Your task to perform on an android device: Clear all items from cart on costco. Search for "razer blade" on costco, select the first entry, and add it to the cart. Image 0: 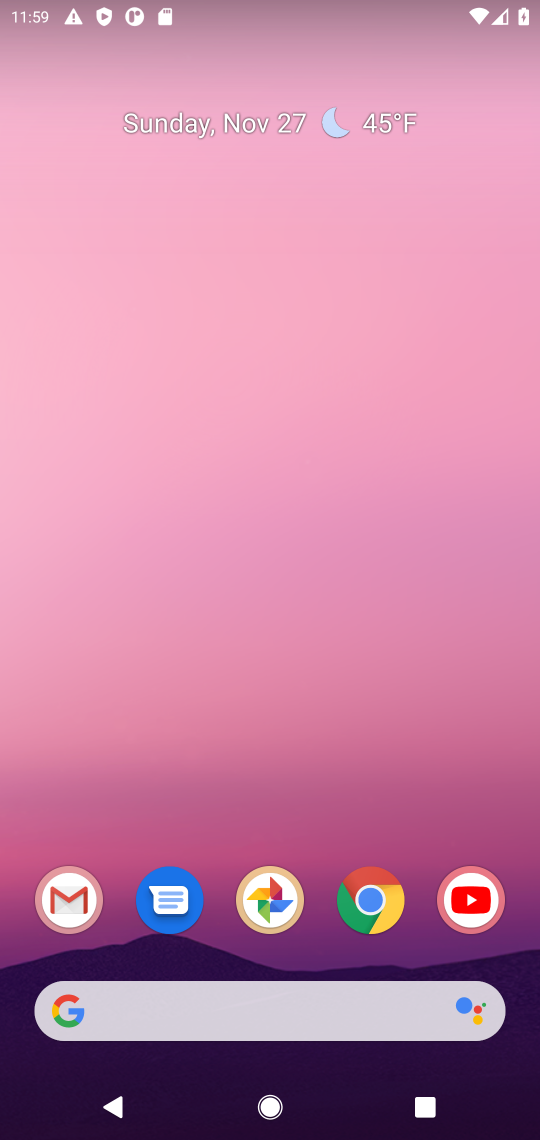
Step 0: click (378, 891)
Your task to perform on an android device: Clear all items from cart on costco. Search for "razer blade" on costco, select the first entry, and add it to the cart. Image 1: 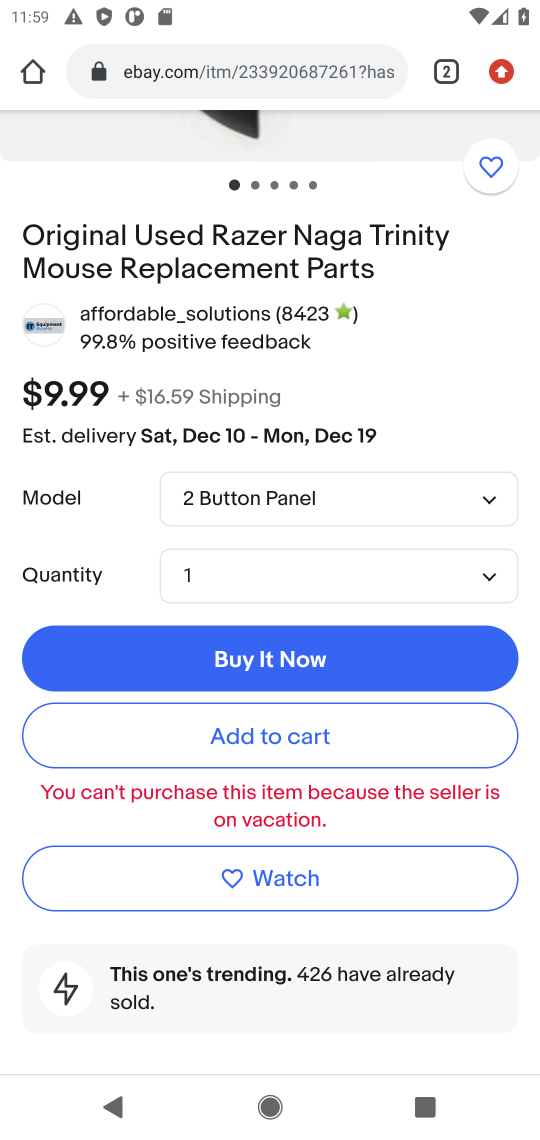
Step 1: click (201, 65)
Your task to perform on an android device: Clear all items from cart on costco. Search for "razer blade" on costco, select the first entry, and add it to the cart. Image 2: 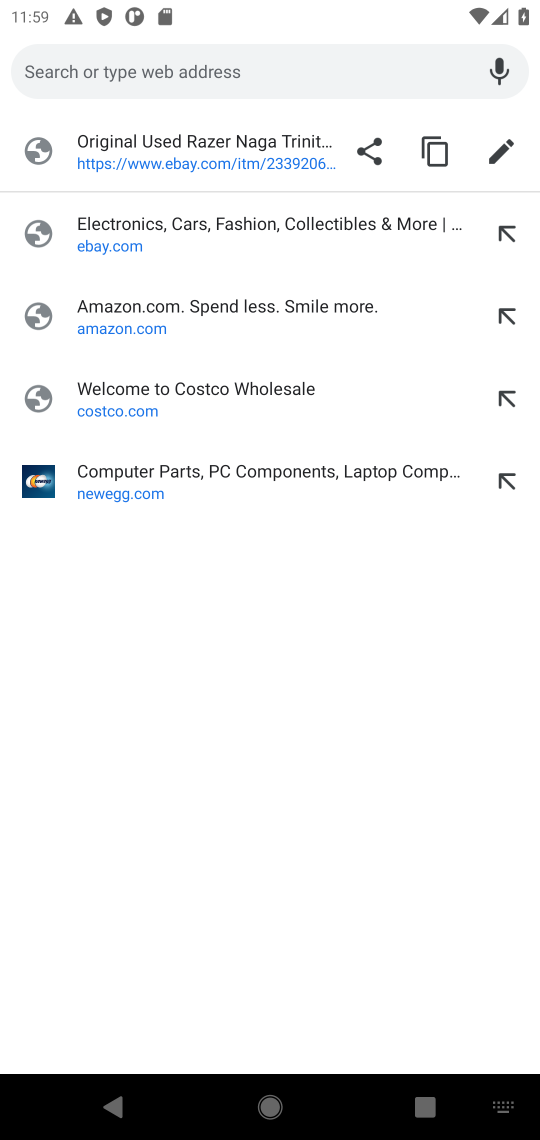
Step 2: click (109, 387)
Your task to perform on an android device: Clear all items from cart on costco. Search for "razer blade" on costco, select the first entry, and add it to the cart. Image 3: 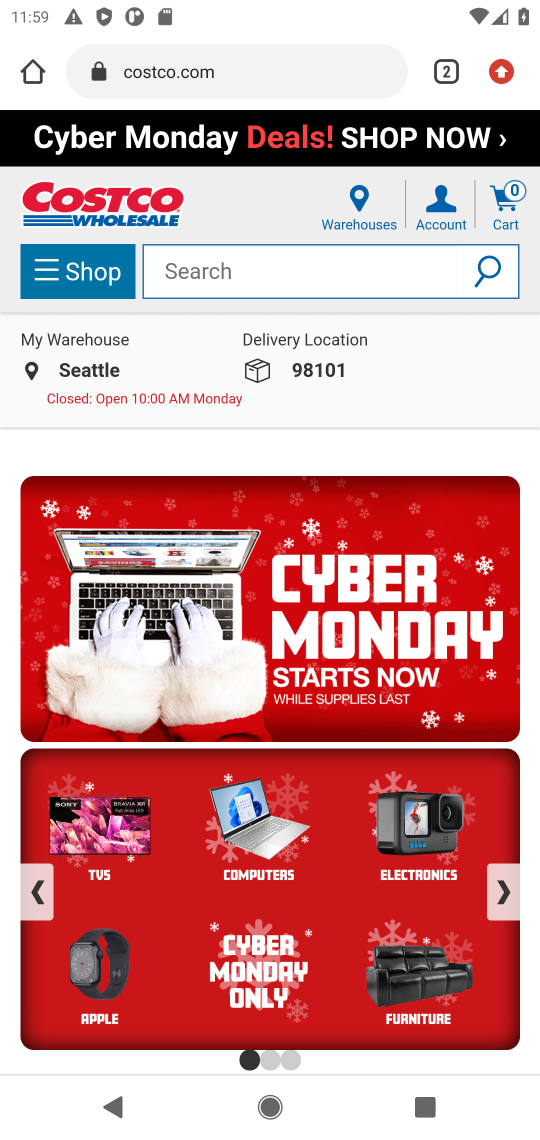
Step 3: click (502, 205)
Your task to perform on an android device: Clear all items from cart on costco. Search for "razer blade" on costco, select the first entry, and add it to the cart. Image 4: 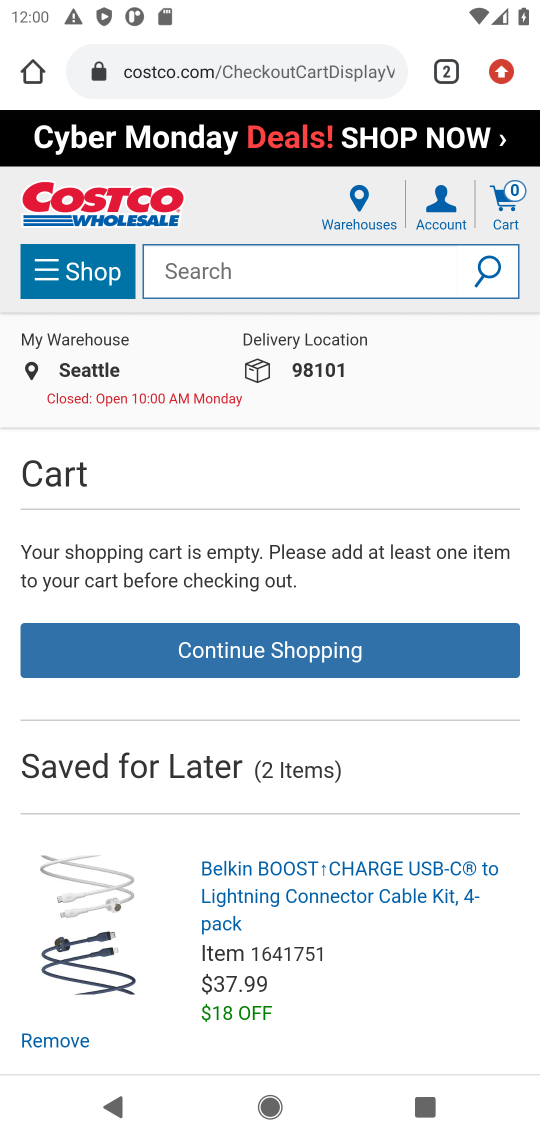
Step 4: click (167, 260)
Your task to perform on an android device: Clear all items from cart on costco. Search for "razer blade" on costco, select the first entry, and add it to the cart. Image 5: 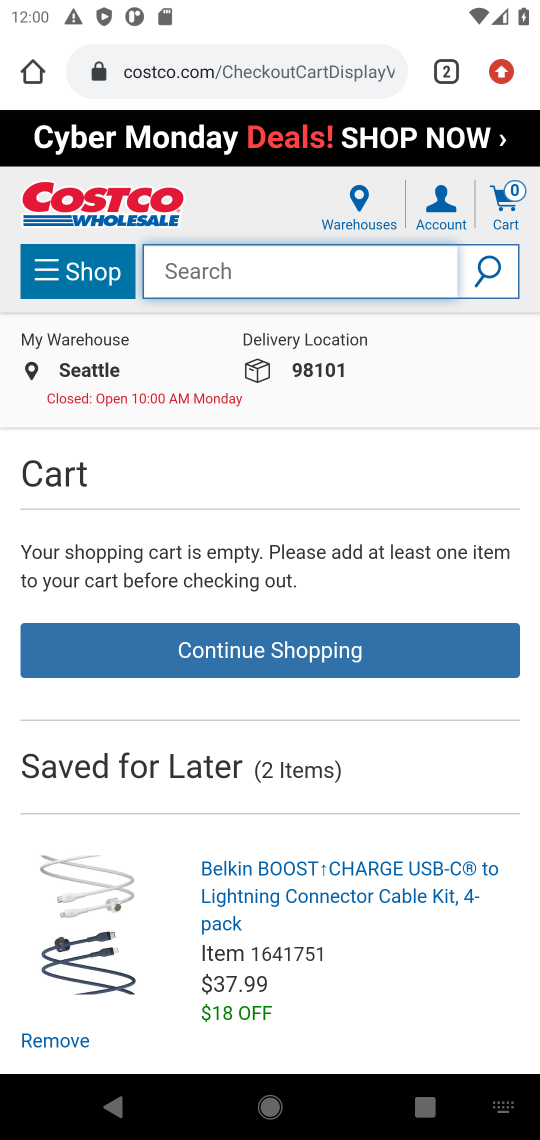
Step 5: type "razer blade"
Your task to perform on an android device: Clear all items from cart on costco. Search for "razer blade" on costco, select the first entry, and add it to the cart. Image 6: 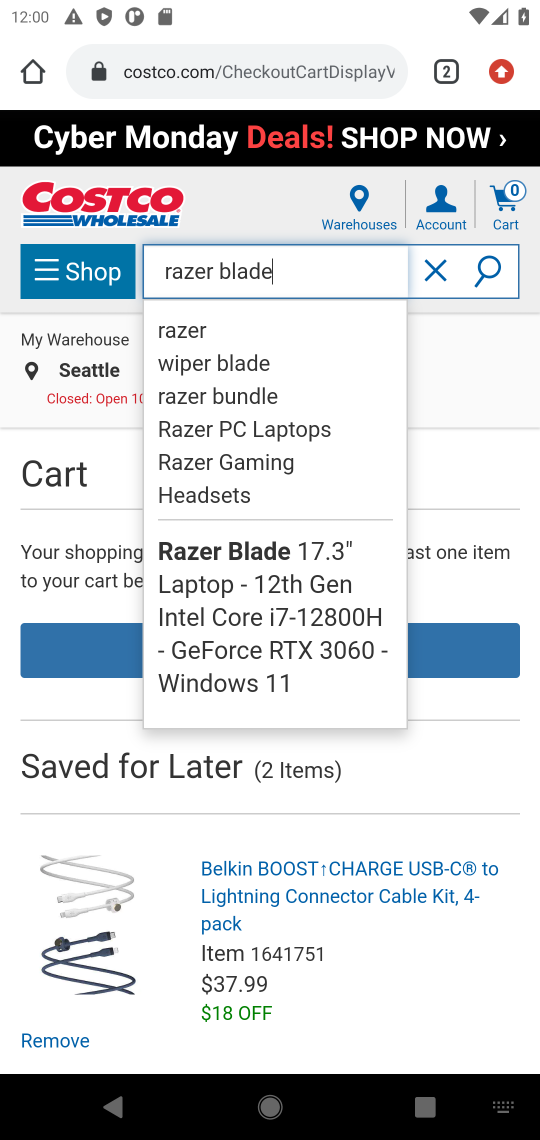
Step 6: click (486, 274)
Your task to perform on an android device: Clear all items from cart on costco. Search for "razer blade" on costco, select the first entry, and add it to the cart. Image 7: 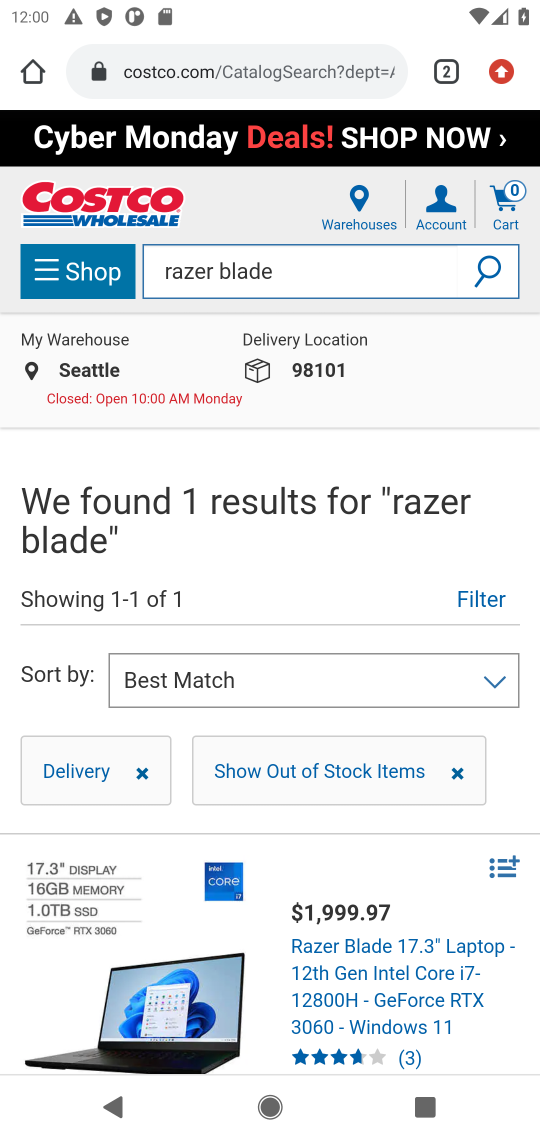
Step 7: drag from (313, 619) to (315, 364)
Your task to perform on an android device: Clear all items from cart on costco. Search for "razer blade" on costco, select the first entry, and add it to the cart. Image 8: 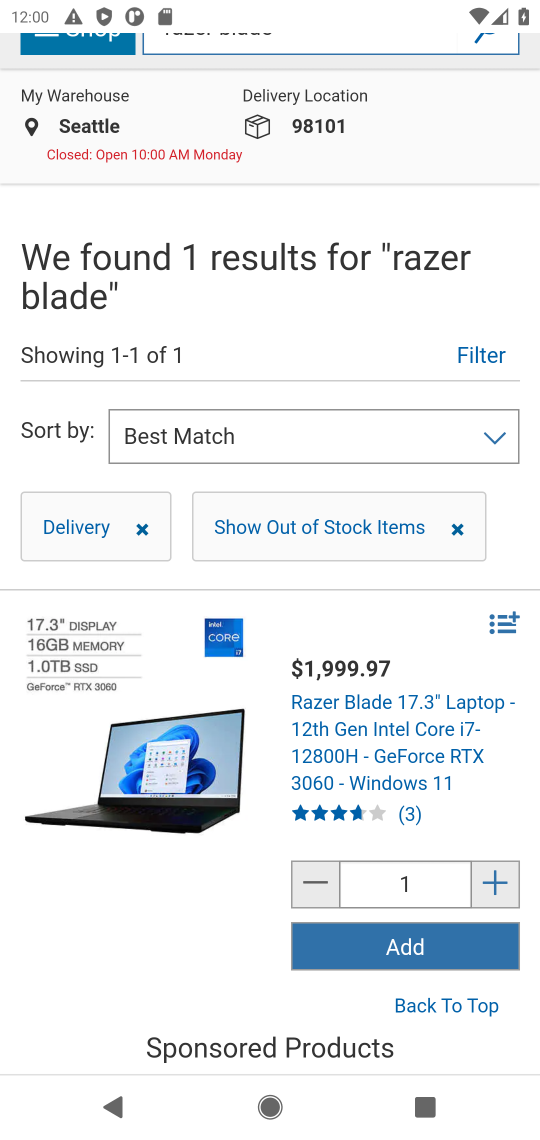
Step 8: click (408, 945)
Your task to perform on an android device: Clear all items from cart on costco. Search for "razer blade" on costco, select the first entry, and add it to the cart. Image 9: 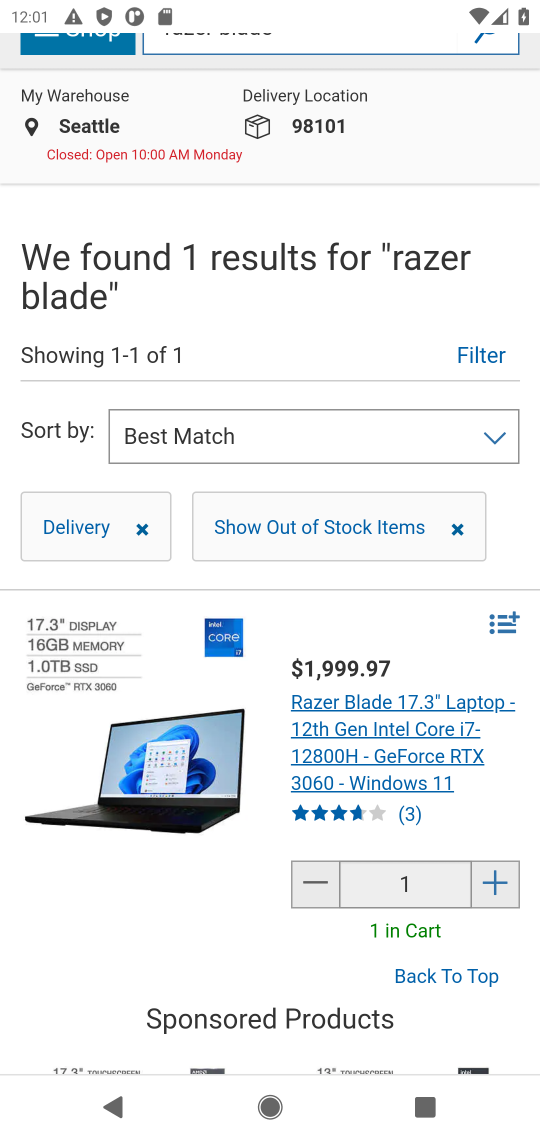
Step 9: task complete